Your task to perform on an android device: Open calendar and show me the third week of next month Image 0: 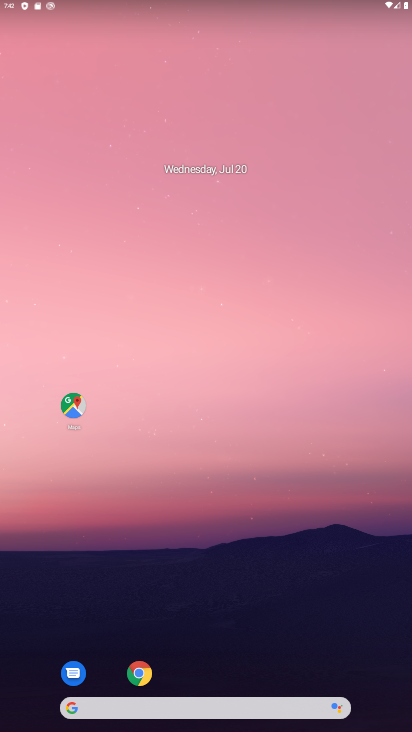
Step 0: drag from (208, 652) to (240, 115)
Your task to perform on an android device: Open calendar and show me the third week of next month Image 1: 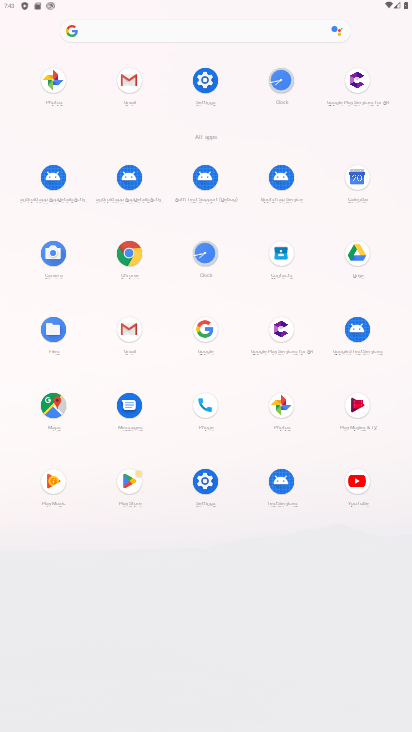
Step 1: click (363, 174)
Your task to perform on an android device: Open calendar and show me the third week of next month Image 2: 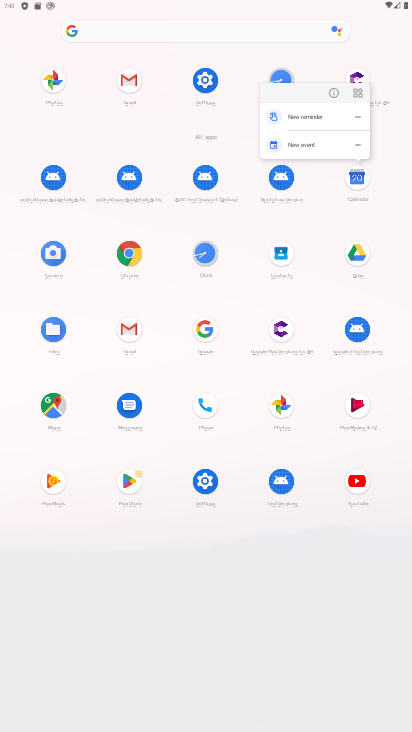
Step 2: click (336, 88)
Your task to perform on an android device: Open calendar and show me the third week of next month Image 3: 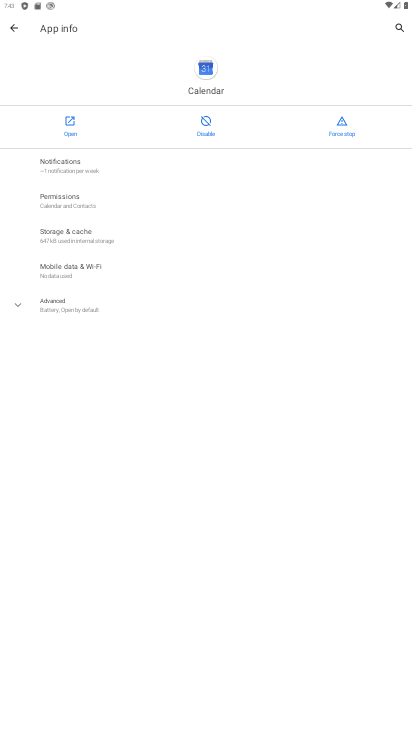
Step 3: click (70, 138)
Your task to perform on an android device: Open calendar and show me the third week of next month Image 4: 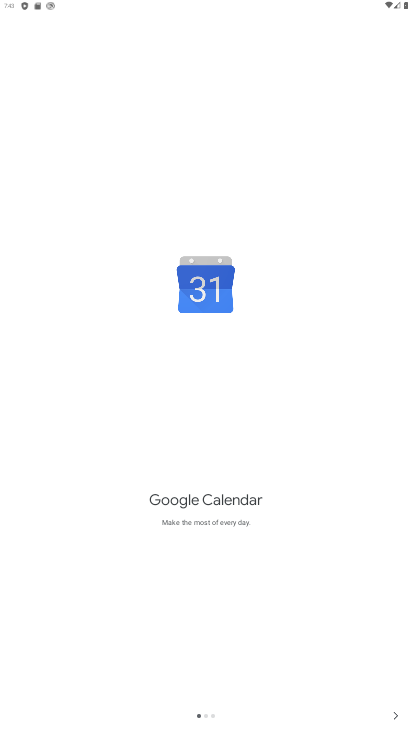
Step 4: click (396, 711)
Your task to perform on an android device: Open calendar and show me the third week of next month Image 5: 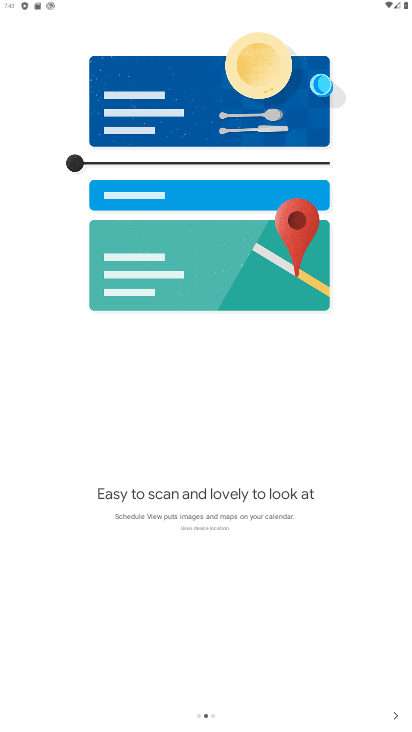
Step 5: click (394, 709)
Your task to perform on an android device: Open calendar and show me the third week of next month Image 6: 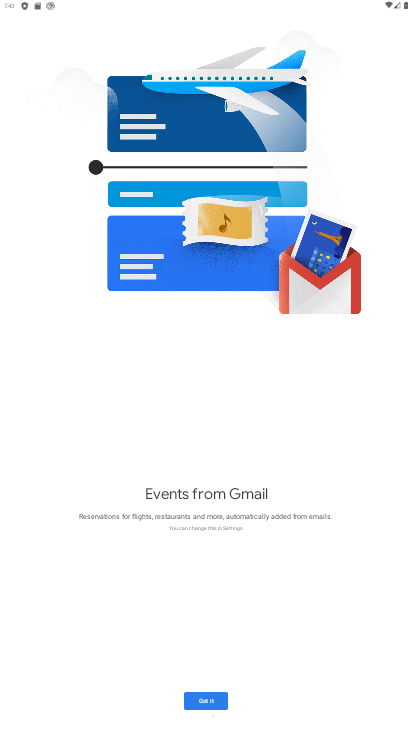
Step 6: drag from (391, 708) to (206, 705)
Your task to perform on an android device: Open calendar and show me the third week of next month Image 7: 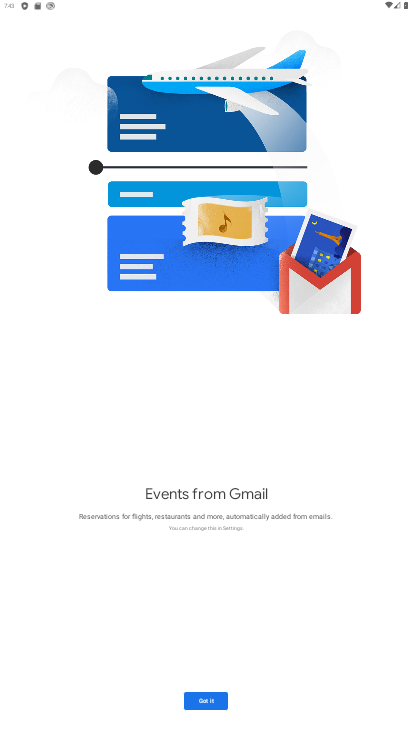
Step 7: click (195, 693)
Your task to perform on an android device: Open calendar and show me the third week of next month Image 8: 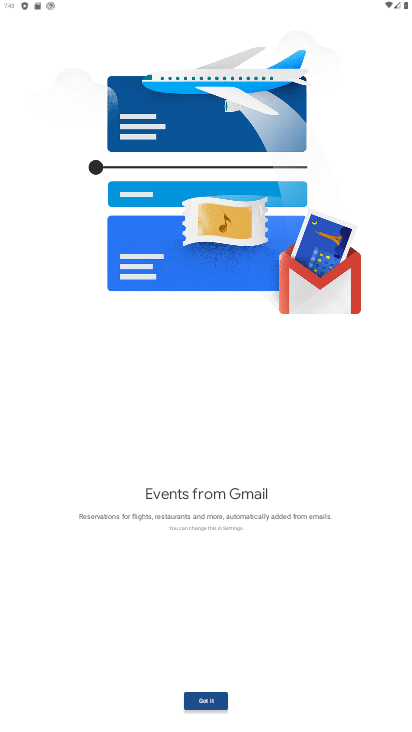
Step 8: click (195, 693)
Your task to perform on an android device: Open calendar and show me the third week of next month Image 9: 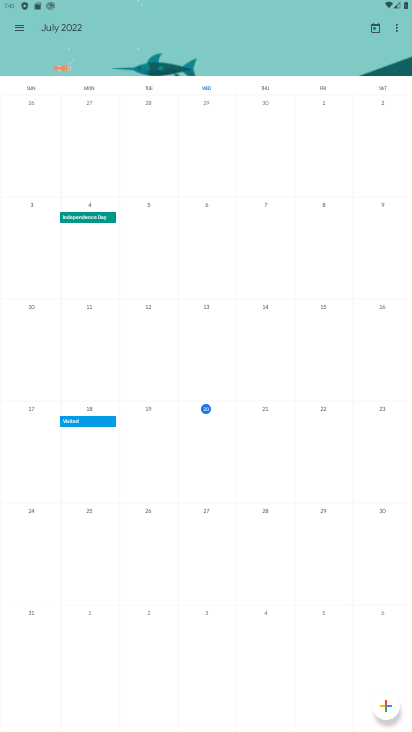
Step 9: click (383, 412)
Your task to perform on an android device: Open calendar and show me the third week of next month Image 10: 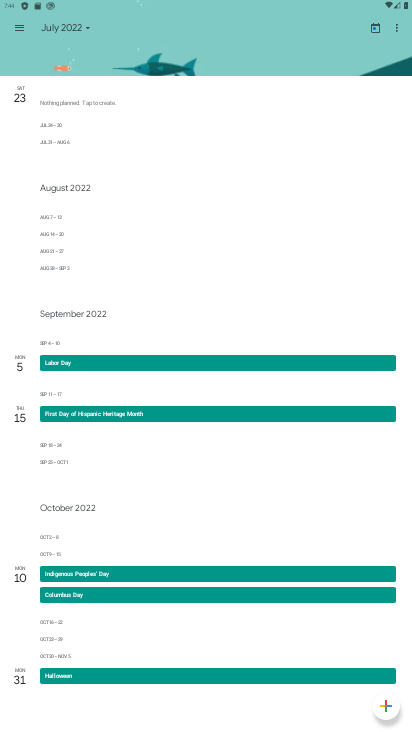
Step 10: task complete